Your task to perform on an android device: see creations saved in the google photos Image 0: 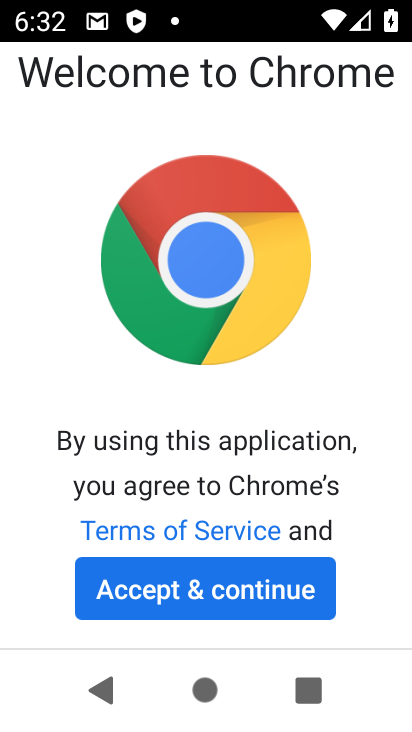
Step 0: press home button
Your task to perform on an android device: see creations saved in the google photos Image 1: 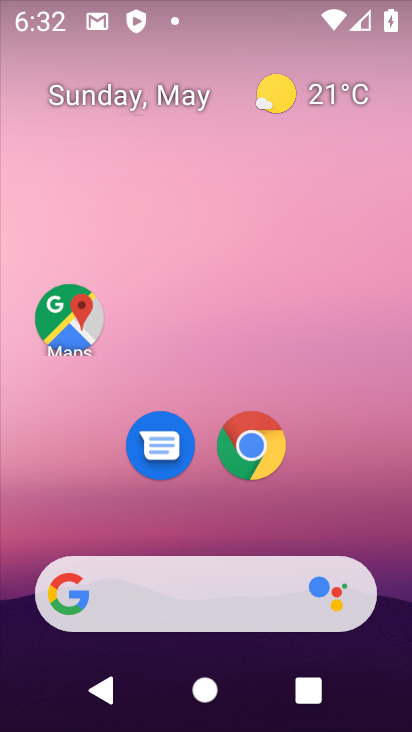
Step 1: drag from (323, 496) to (230, 2)
Your task to perform on an android device: see creations saved in the google photos Image 2: 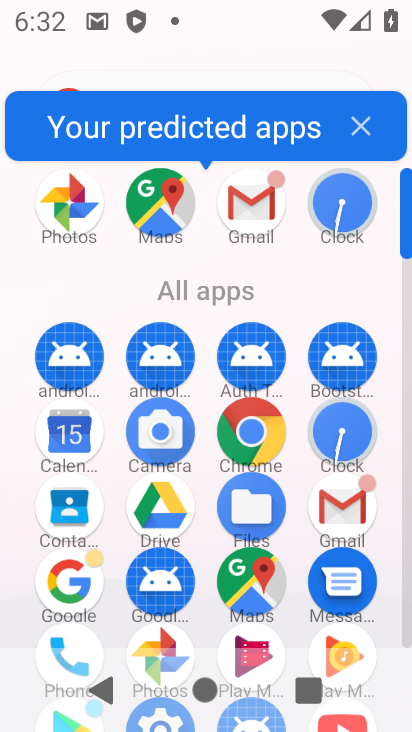
Step 2: click (60, 215)
Your task to perform on an android device: see creations saved in the google photos Image 3: 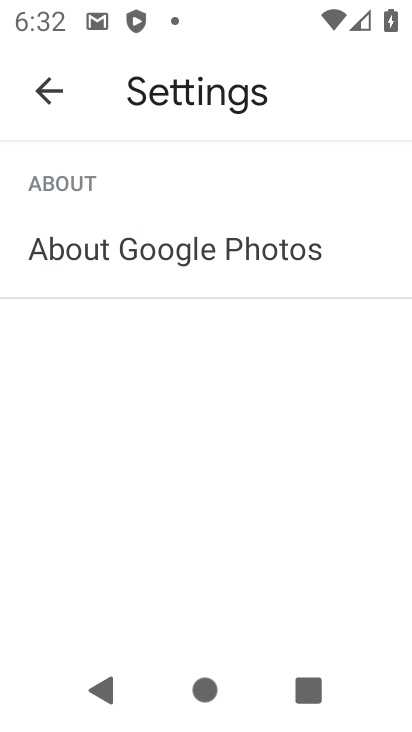
Step 3: click (42, 93)
Your task to perform on an android device: see creations saved in the google photos Image 4: 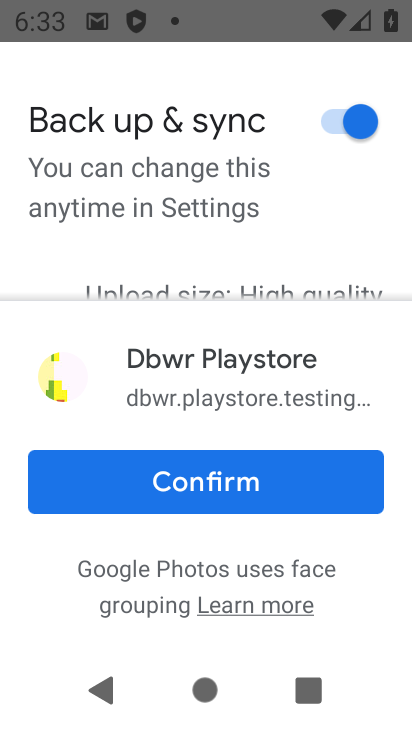
Step 4: click (208, 486)
Your task to perform on an android device: see creations saved in the google photos Image 5: 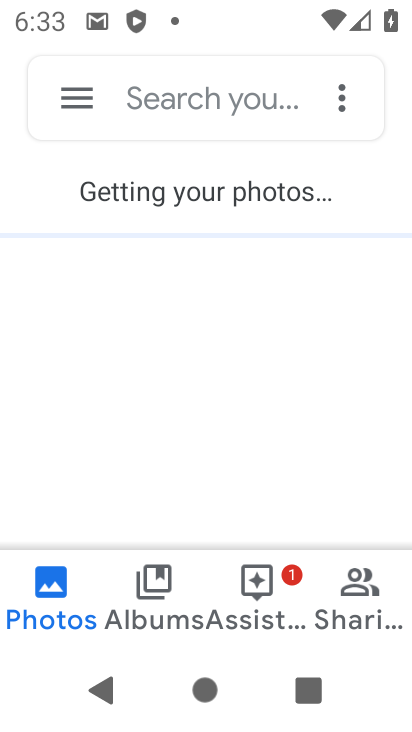
Step 5: click (163, 99)
Your task to perform on an android device: see creations saved in the google photos Image 6: 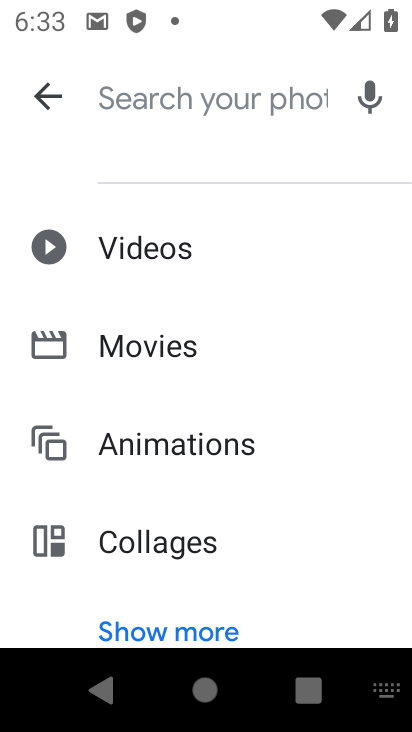
Step 6: click (190, 628)
Your task to perform on an android device: see creations saved in the google photos Image 7: 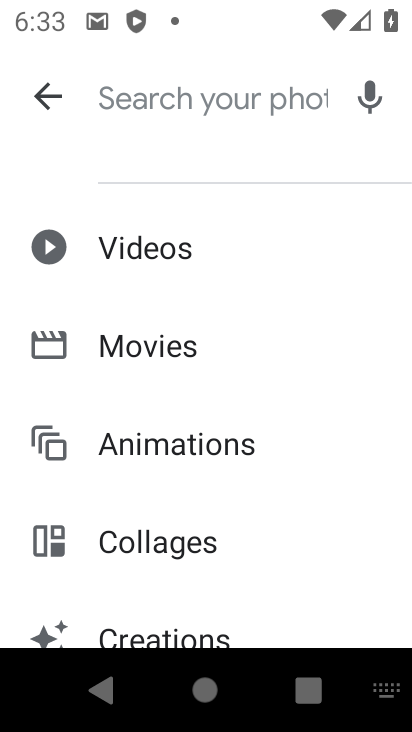
Step 7: click (169, 640)
Your task to perform on an android device: see creations saved in the google photos Image 8: 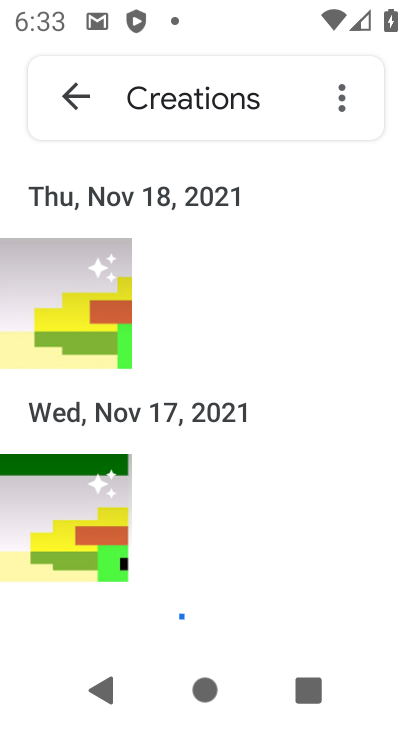
Step 8: task complete